Your task to perform on an android device: turn on translation in the chrome app Image 0: 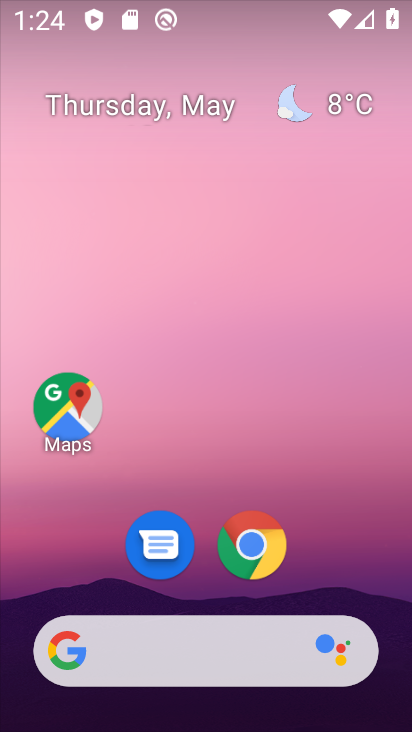
Step 0: click (257, 537)
Your task to perform on an android device: turn on translation in the chrome app Image 1: 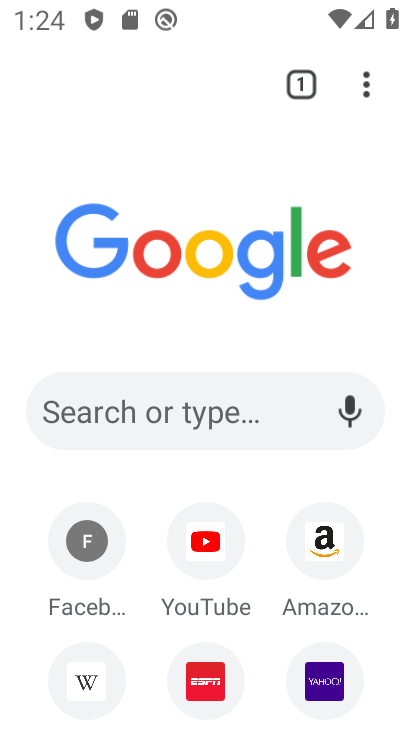
Step 1: click (361, 90)
Your task to perform on an android device: turn on translation in the chrome app Image 2: 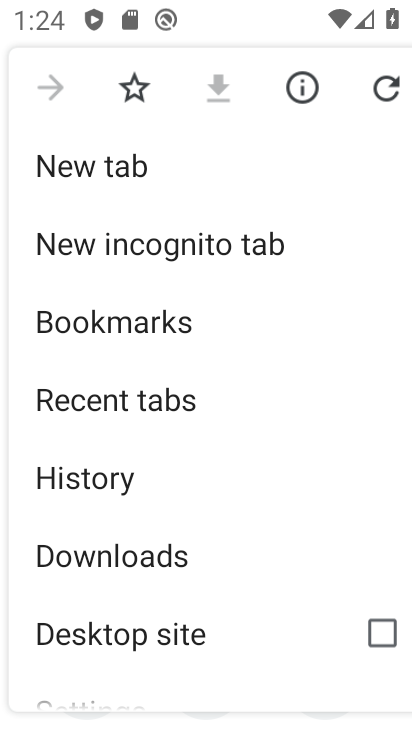
Step 2: drag from (262, 598) to (310, 231)
Your task to perform on an android device: turn on translation in the chrome app Image 3: 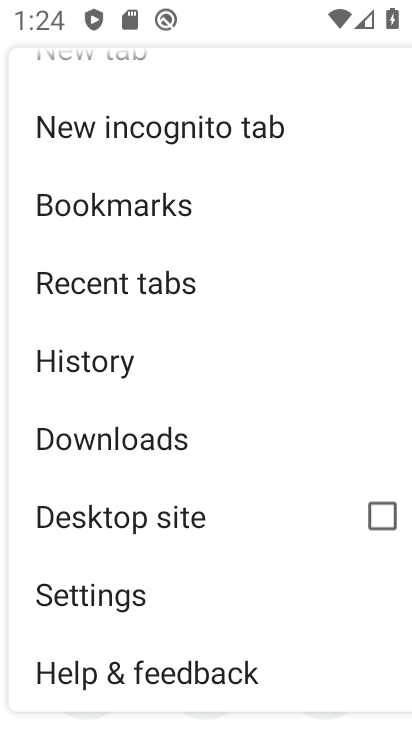
Step 3: click (111, 597)
Your task to perform on an android device: turn on translation in the chrome app Image 4: 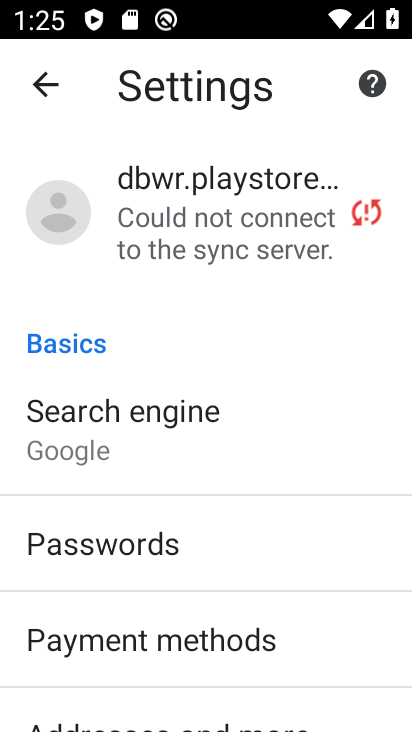
Step 4: drag from (320, 626) to (266, 241)
Your task to perform on an android device: turn on translation in the chrome app Image 5: 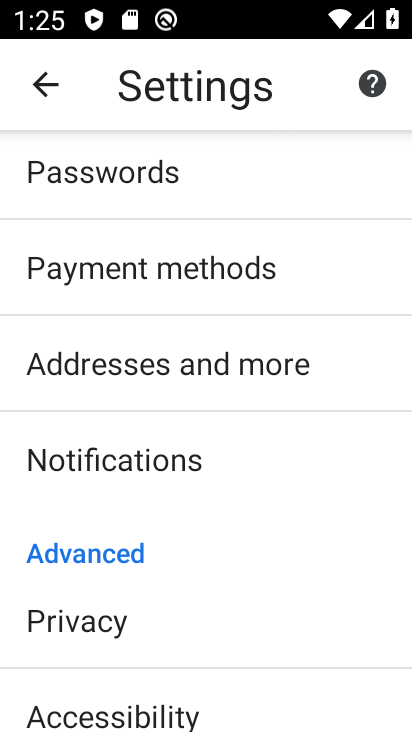
Step 5: drag from (280, 600) to (318, 230)
Your task to perform on an android device: turn on translation in the chrome app Image 6: 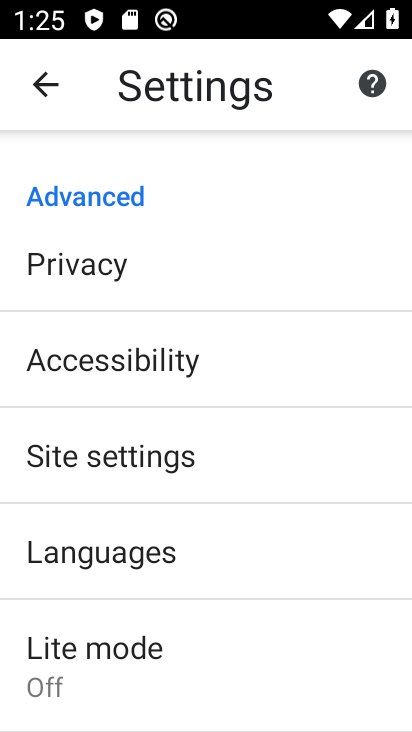
Step 6: click (129, 564)
Your task to perform on an android device: turn on translation in the chrome app Image 7: 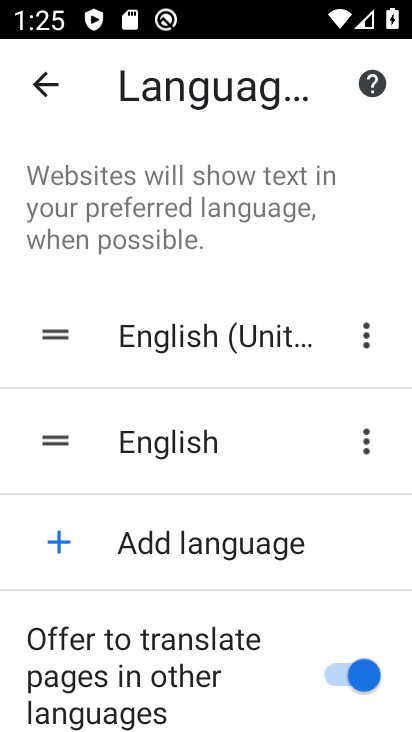
Step 7: drag from (232, 621) to (283, 216)
Your task to perform on an android device: turn on translation in the chrome app Image 8: 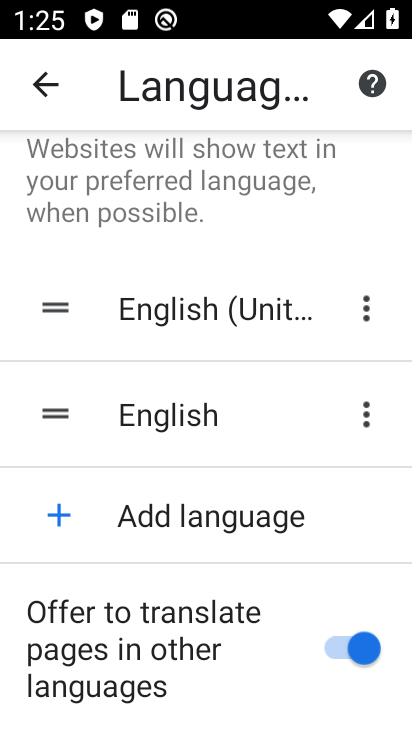
Step 8: click (334, 635)
Your task to perform on an android device: turn on translation in the chrome app Image 9: 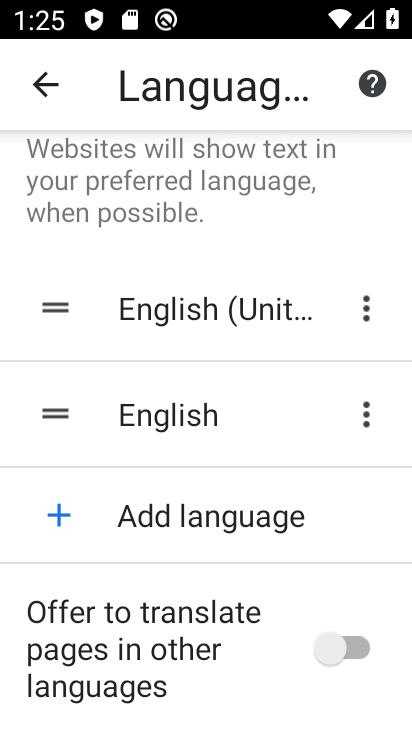
Step 9: task complete